Your task to perform on an android device: See recent photos Image 0: 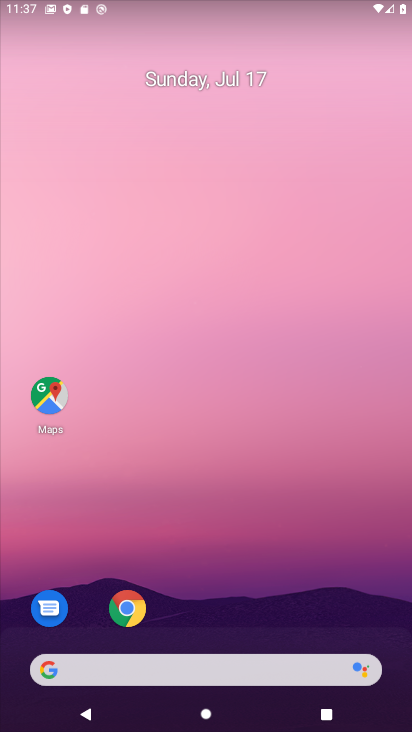
Step 0: drag from (222, 664) to (301, 191)
Your task to perform on an android device: See recent photos Image 1: 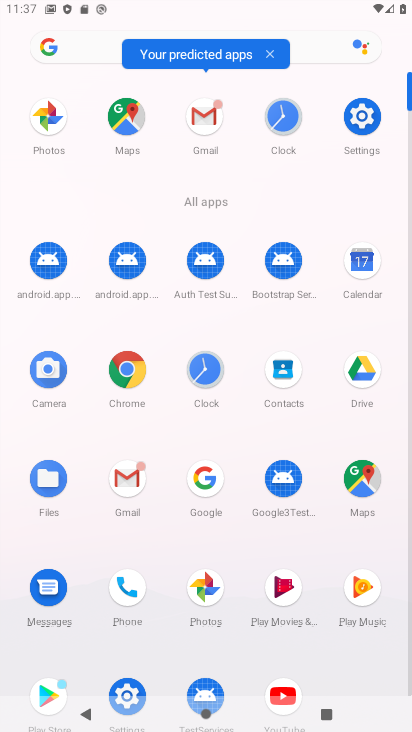
Step 1: click (191, 580)
Your task to perform on an android device: See recent photos Image 2: 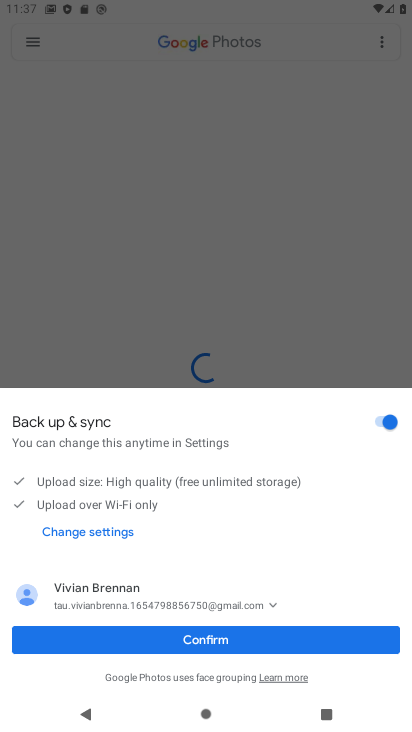
Step 2: click (250, 652)
Your task to perform on an android device: See recent photos Image 3: 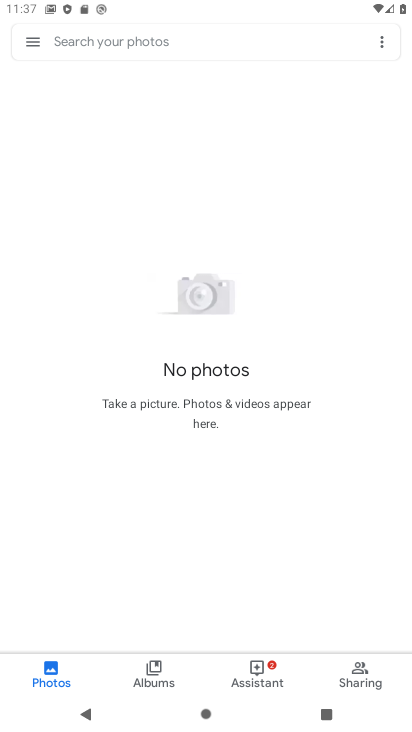
Step 3: task complete